Your task to perform on an android device: Go to location settings Image 0: 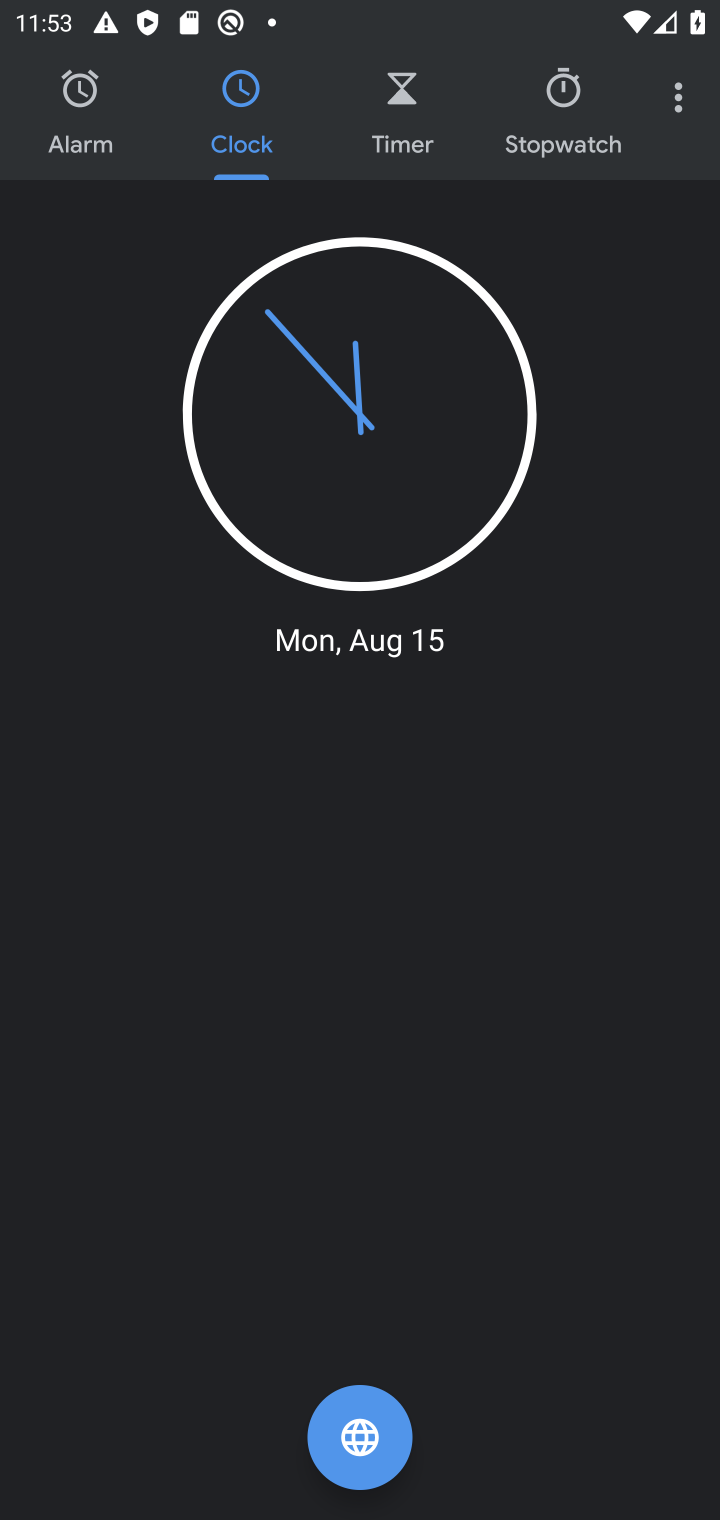
Step 0: press home button
Your task to perform on an android device: Go to location settings Image 1: 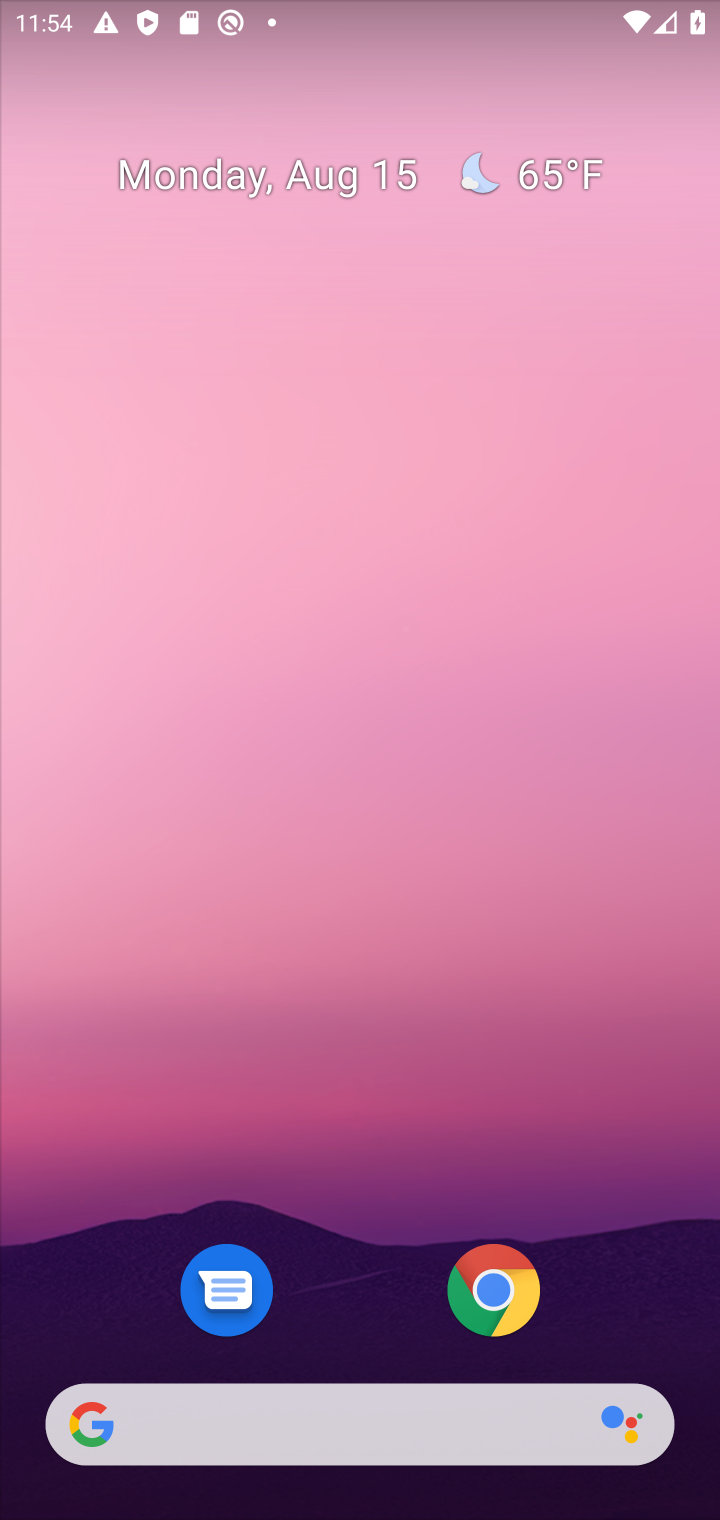
Step 1: drag from (20, 1326) to (671, 200)
Your task to perform on an android device: Go to location settings Image 2: 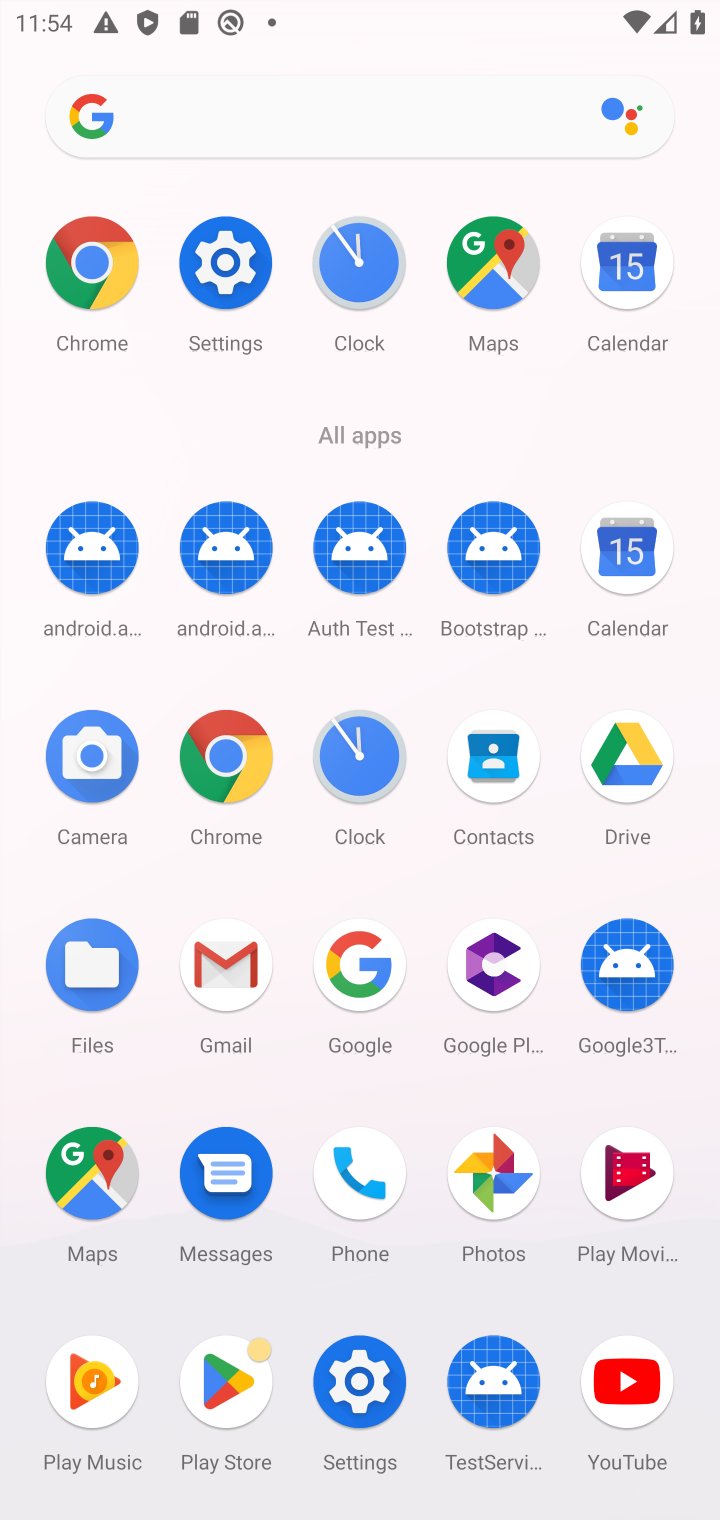
Step 2: click (232, 252)
Your task to perform on an android device: Go to location settings Image 3: 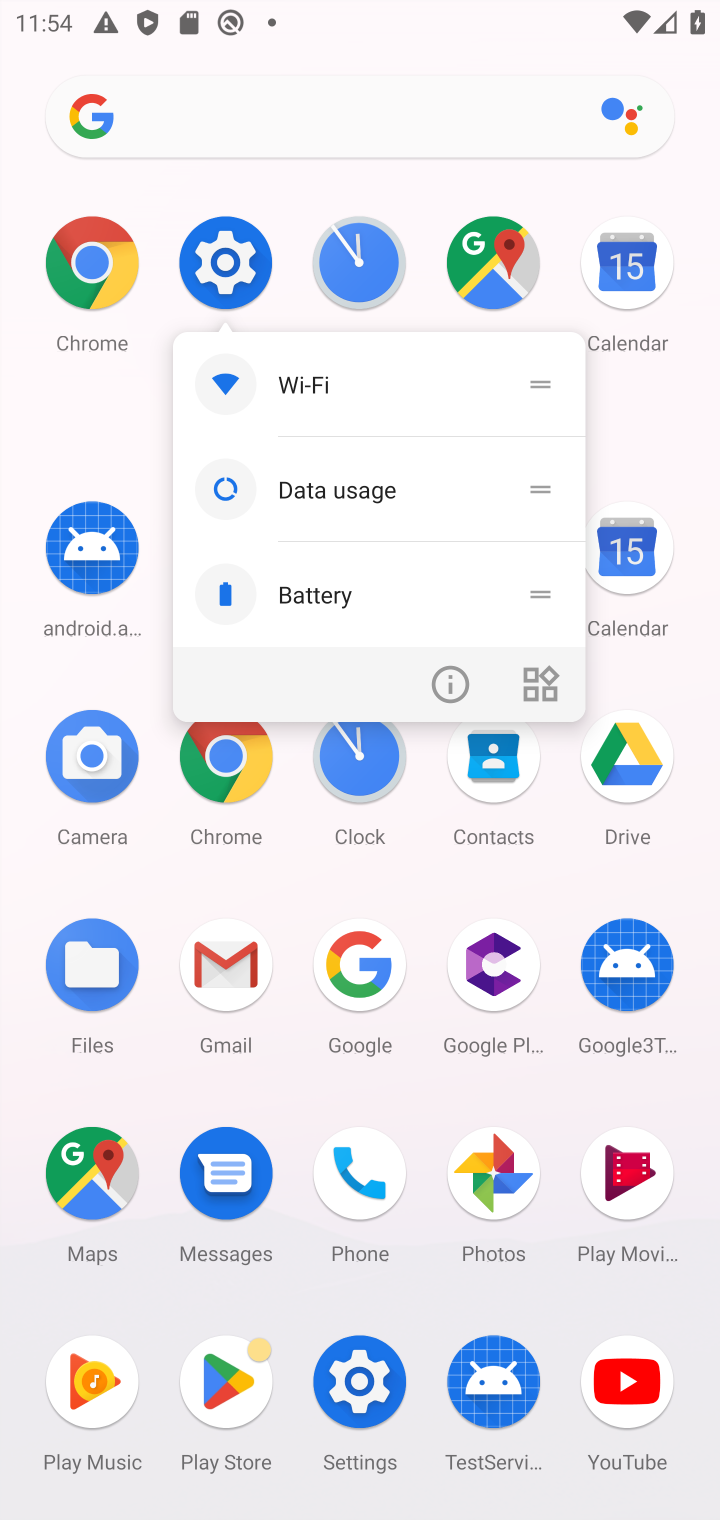
Step 3: click (227, 257)
Your task to perform on an android device: Go to location settings Image 4: 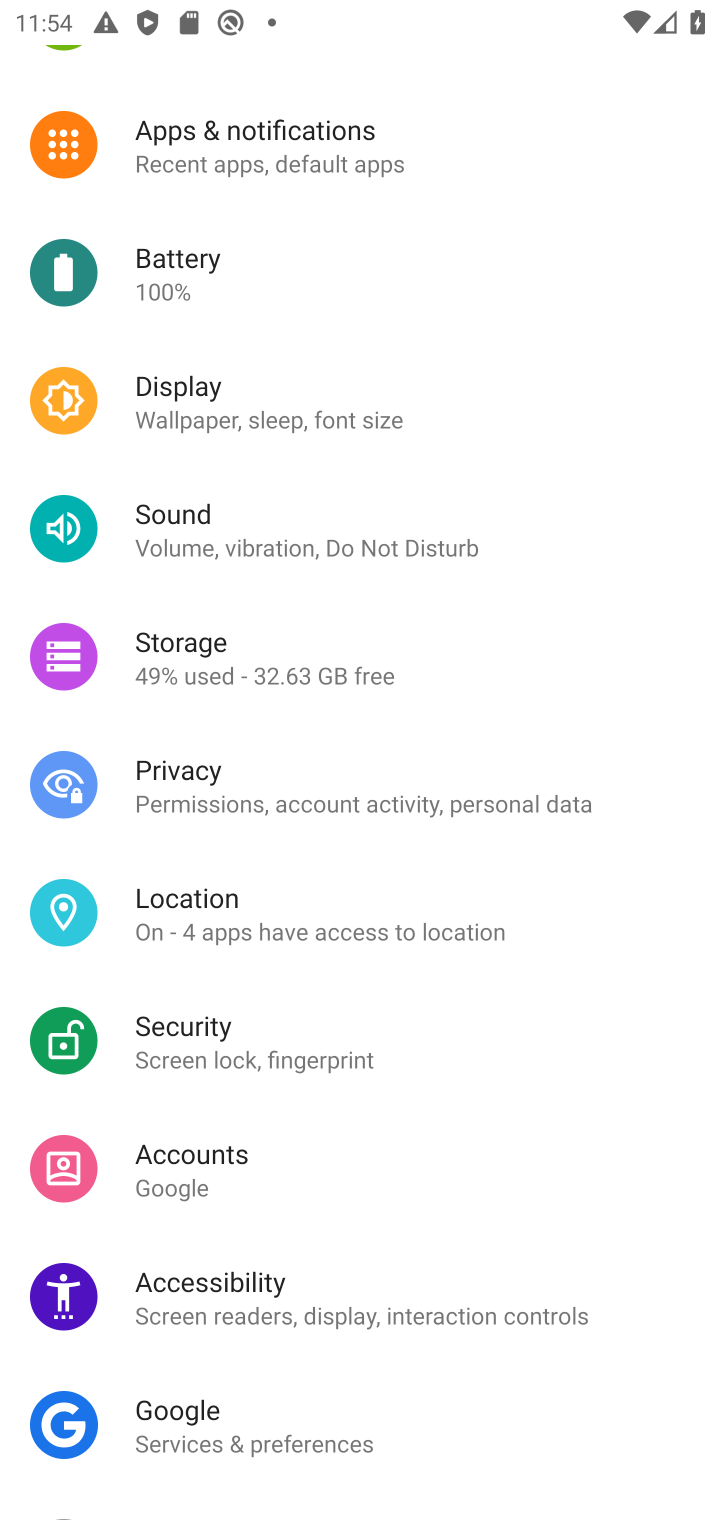
Step 4: click (234, 904)
Your task to perform on an android device: Go to location settings Image 5: 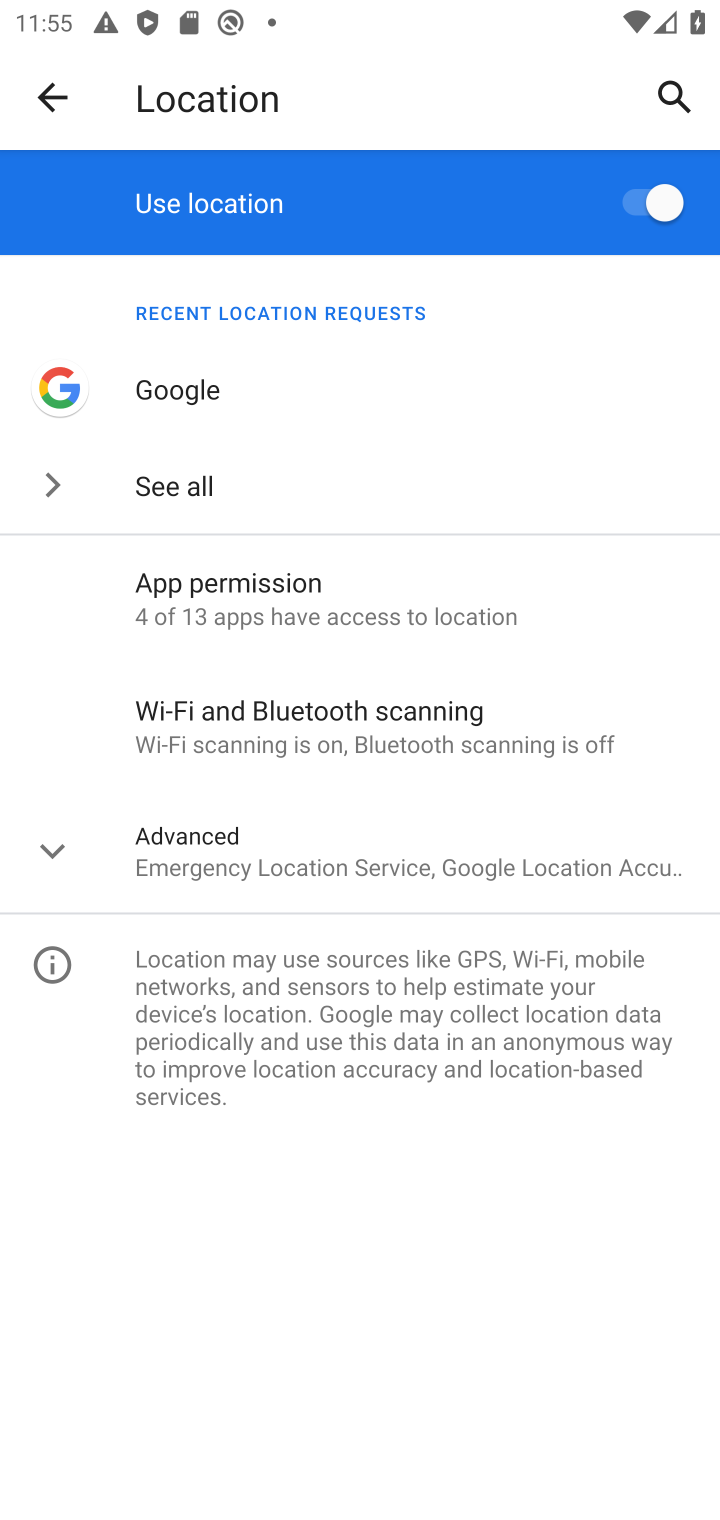
Step 5: task complete